Your task to perform on an android device: Where can I buy a nice beach hat? Image 0: 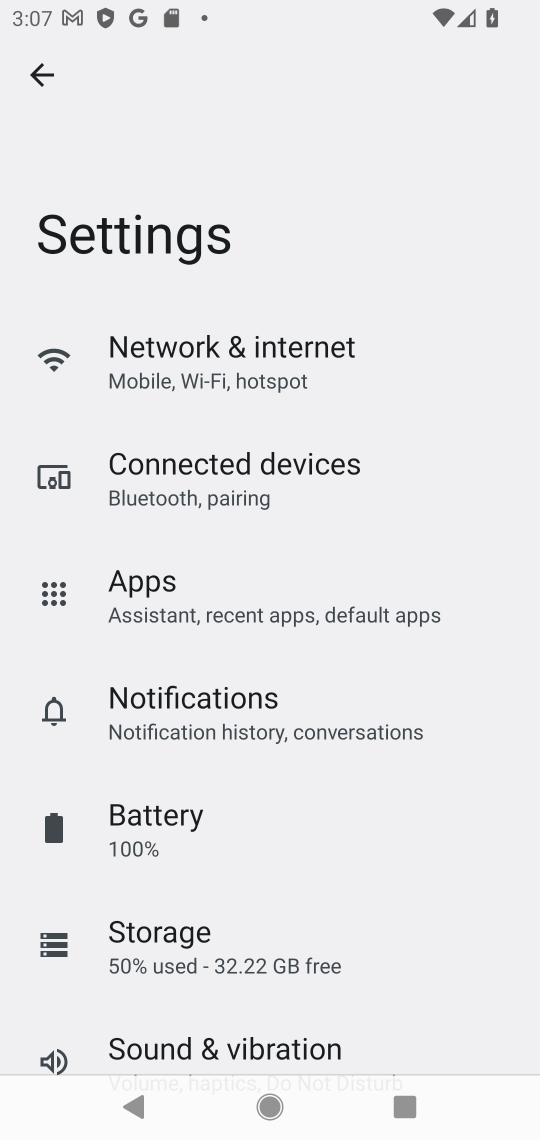
Step 0: press home button
Your task to perform on an android device: Where can I buy a nice beach hat? Image 1: 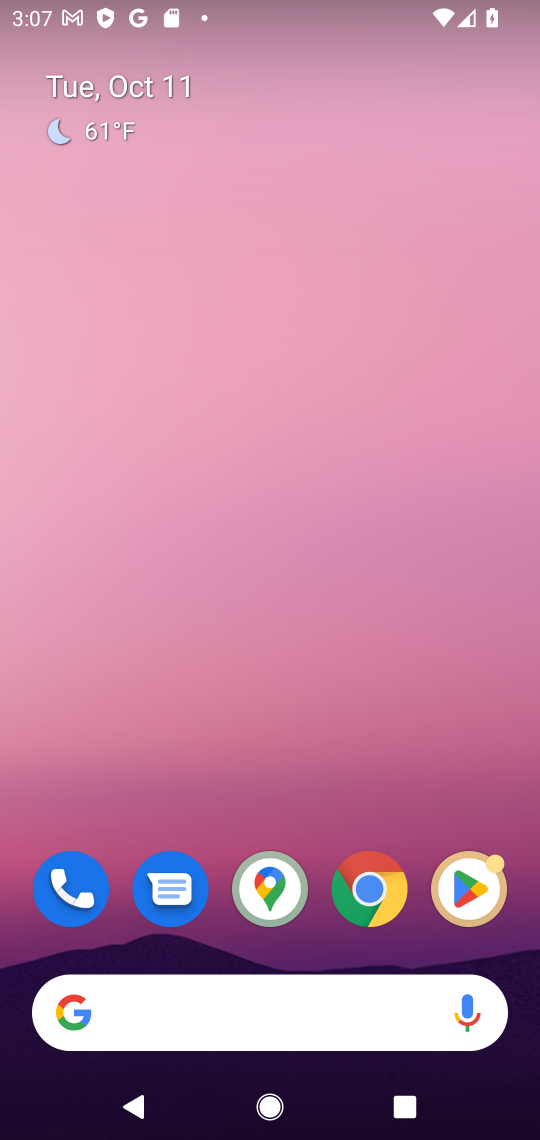
Step 1: drag from (248, 889) to (283, 322)
Your task to perform on an android device: Where can I buy a nice beach hat? Image 2: 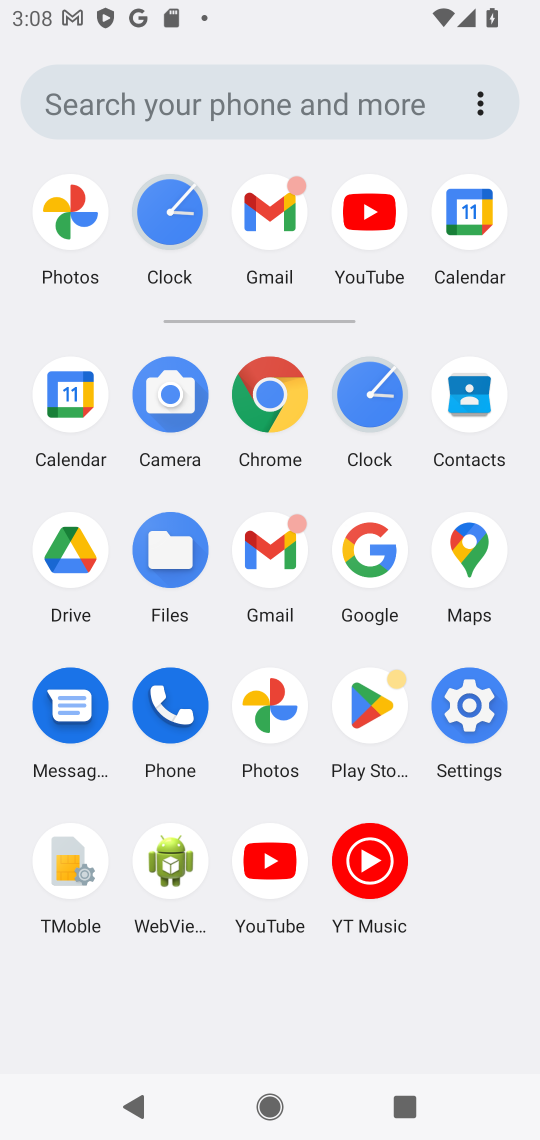
Step 2: click (376, 552)
Your task to perform on an android device: Where can I buy a nice beach hat? Image 3: 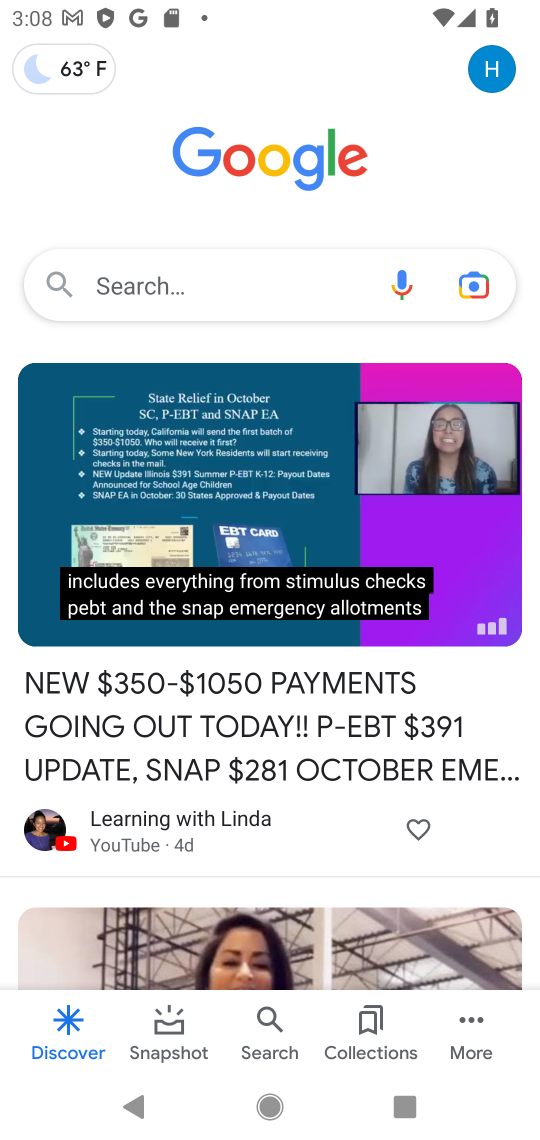
Step 3: click (192, 265)
Your task to perform on an android device: Where can I buy a nice beach hat? Image 4: 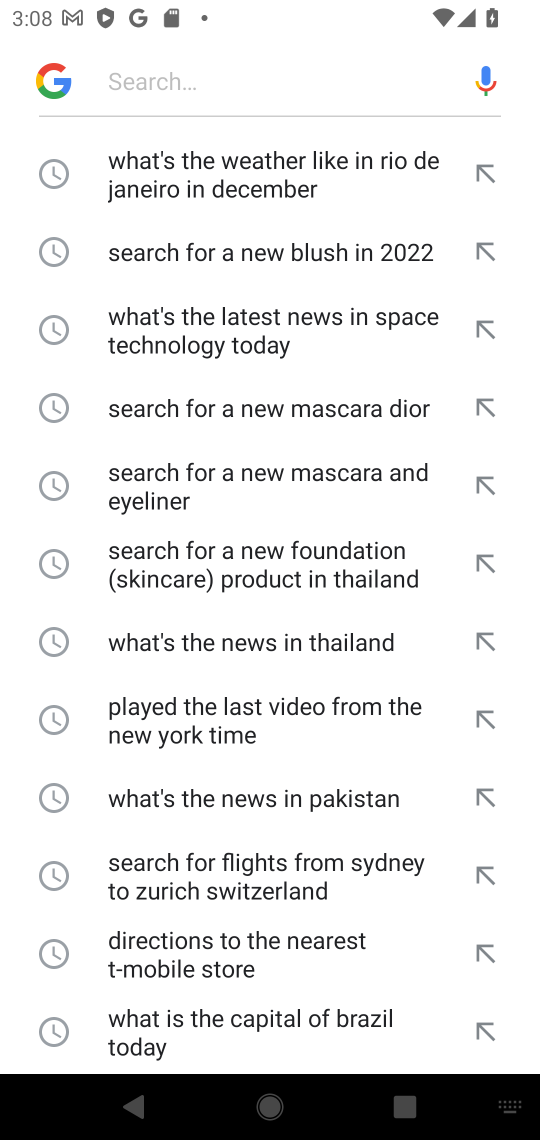
Step 4: type "Where can I buy a nice beach hat "
Your task to perform on an android device: Where can I buy a nice beach hat? Image 5: 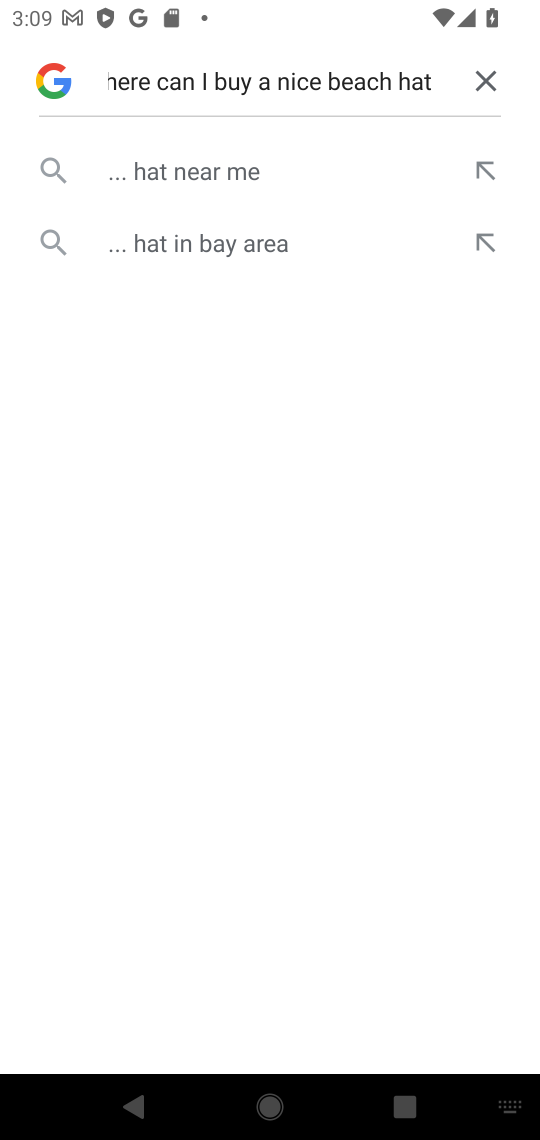
Step 5: click (206, 179)
Your task to perform on an android device: Where can I buy a nice beach hat? Image 6: 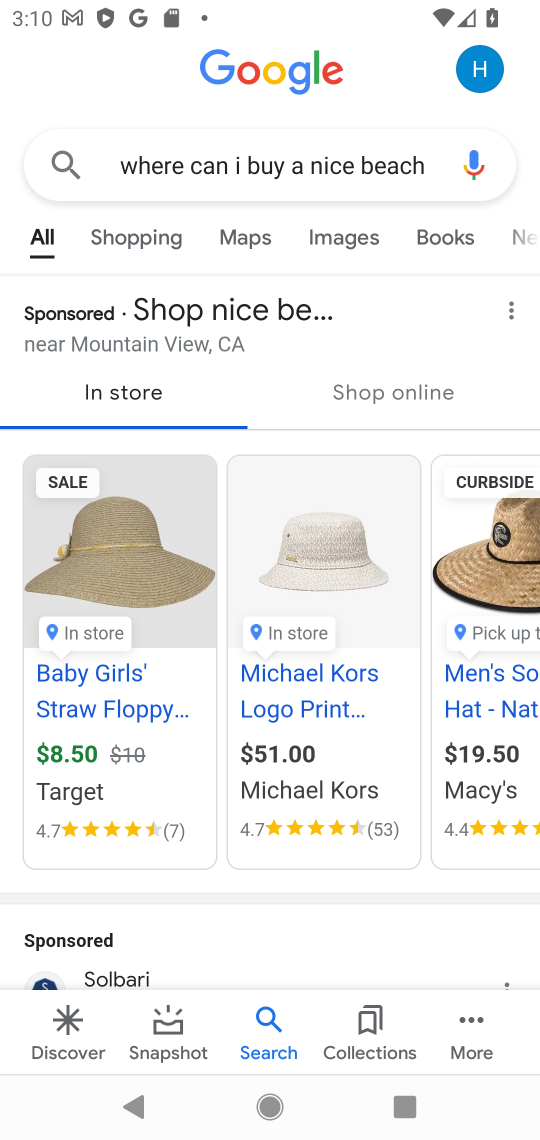
Step 6: task complete